Your task to perform on an android device: Find coffee shops on Maps Image 0: 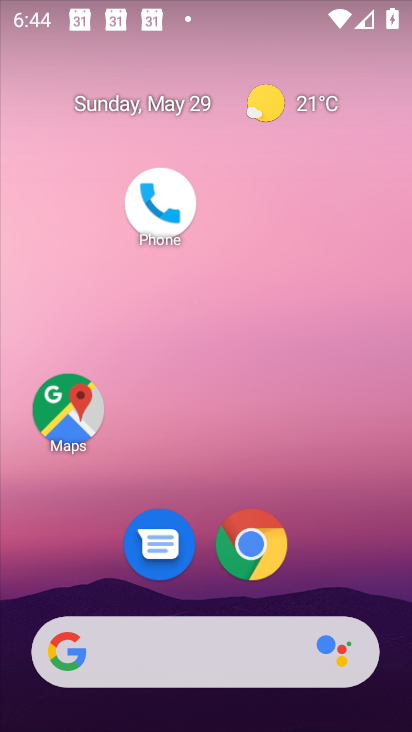
Step 0: click (60, 416)
Your task to perform on an android device: Find coffee shops on Maps Image 1: 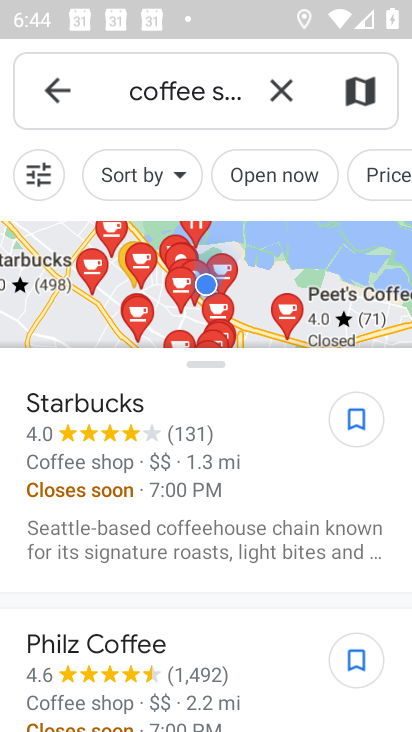
Step 1: task complete